Your task to perform on an android device: create a new album in the google photos Image 0: 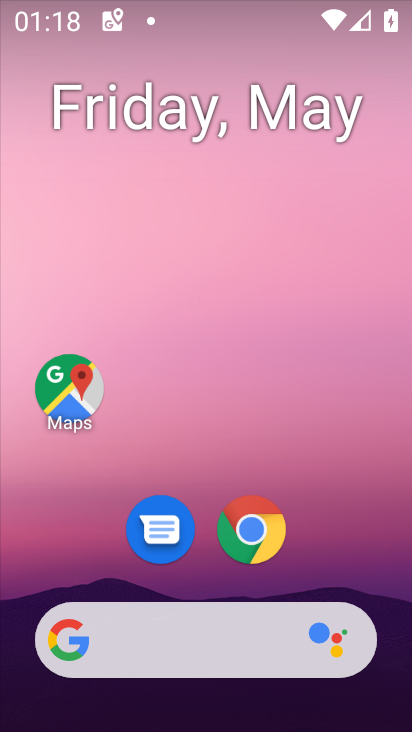
Step 0: drag from (310, 515) to (321, 188)
Your task to perform on an android device: create a new album in the google photos Image 1: 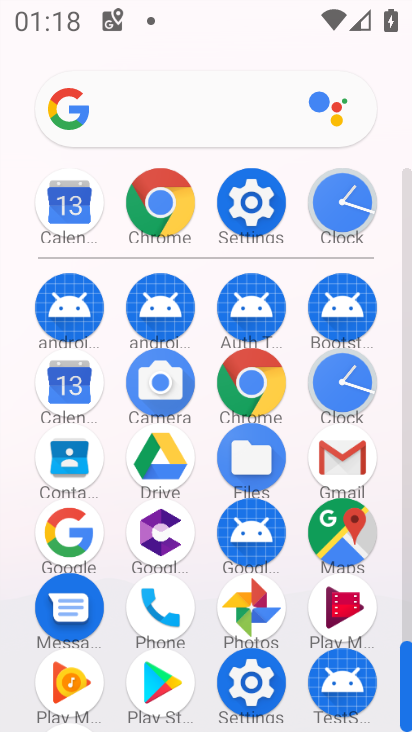
Step 1: click (253, 603)
Your task to perform on an android device: create a new album in the google photos Image 2: 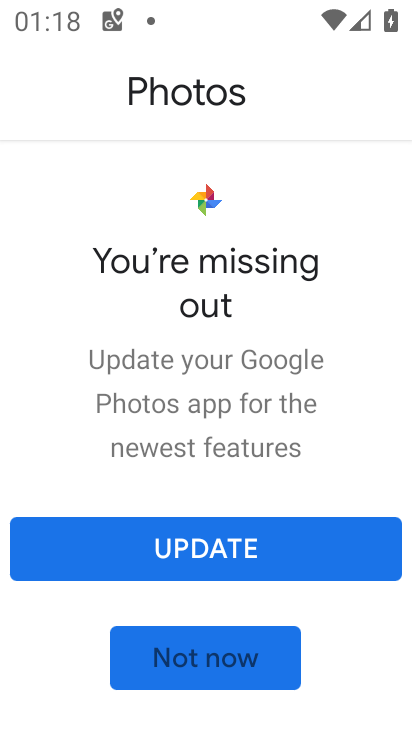
Step 2: click (248, 659)
Your task to perform on an android device: create a new album in the google photos Image 3: 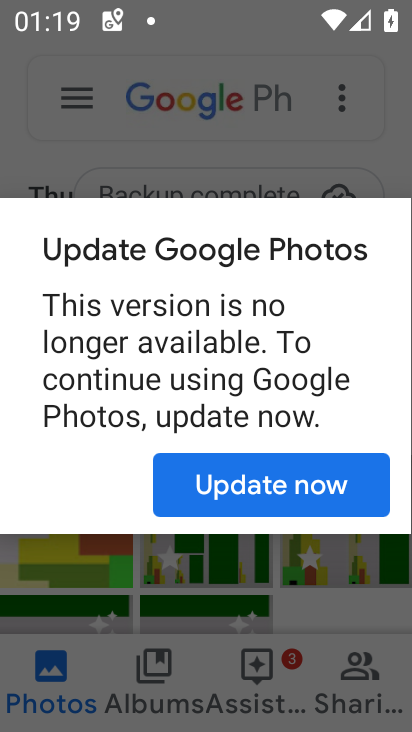
Step 3: click (290, 492)
Your task to perform on an android device: create a new album in the google photos Image 4: 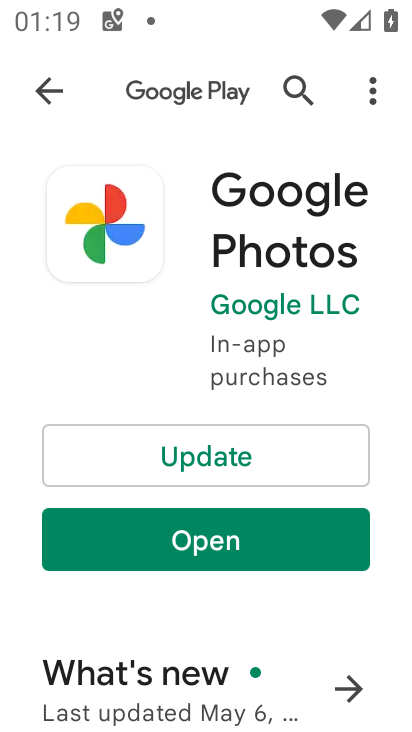
Step 4: press back button
Your task to perform on an android device: create a new album in the google photos Image 5: 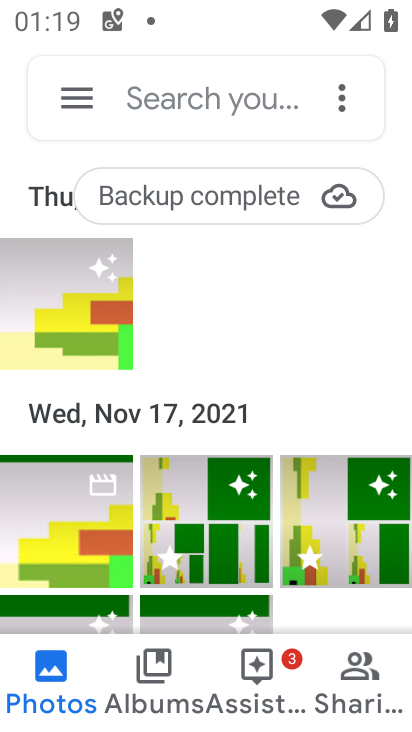
Step 5: click (101, 538)
Your task to perform on an android device: create a new album in the google photos Image 6: 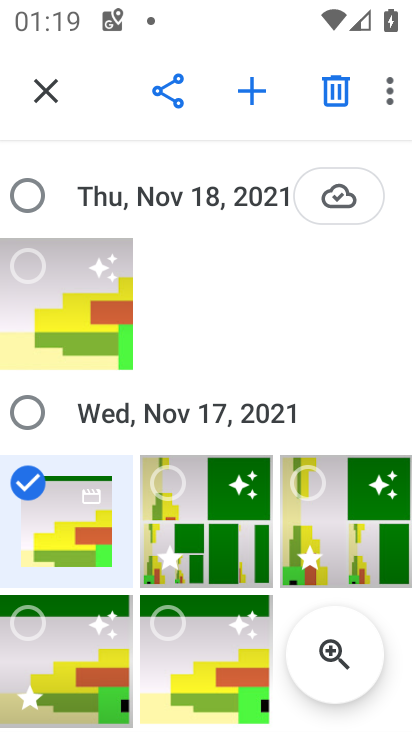
Step 6: click (262, 93)
Your task to perform on an android device: create a new album in the google photos Image 7: 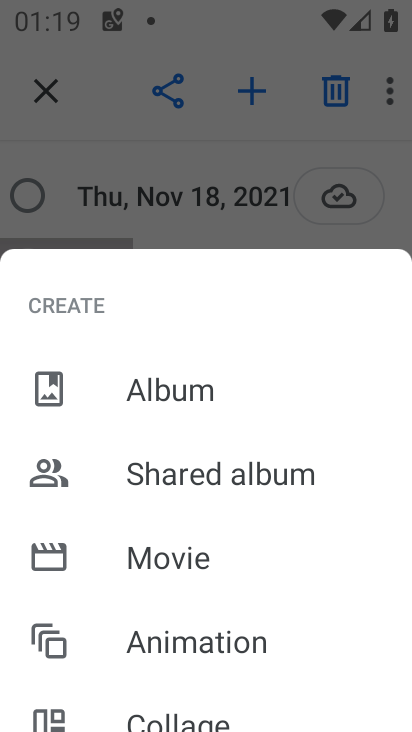
Step 7: click (145, 401)
Your task to perform on an android device: create a new album in the google photos Image 8: 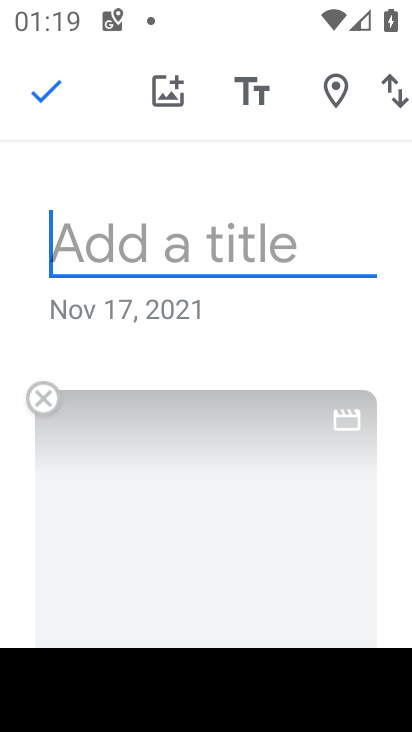
Step 8: click (175, 223)
Your task to perform on an android device: create a new album in the google photos Image 9: 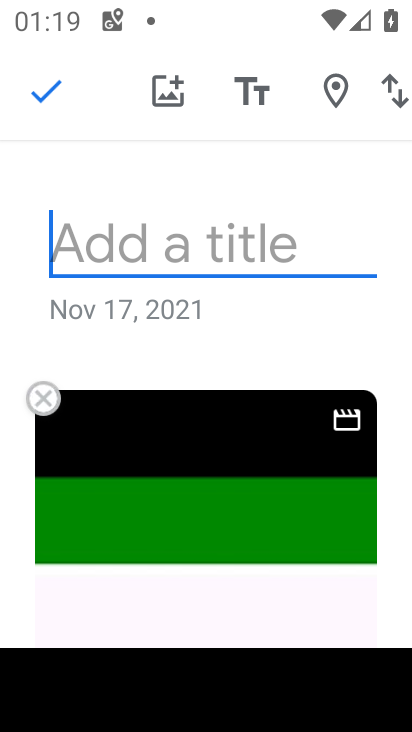
Step 9: type "kfkfkfkfk"
Your task to perform on an android device: create a new album in the google photos Image 10: 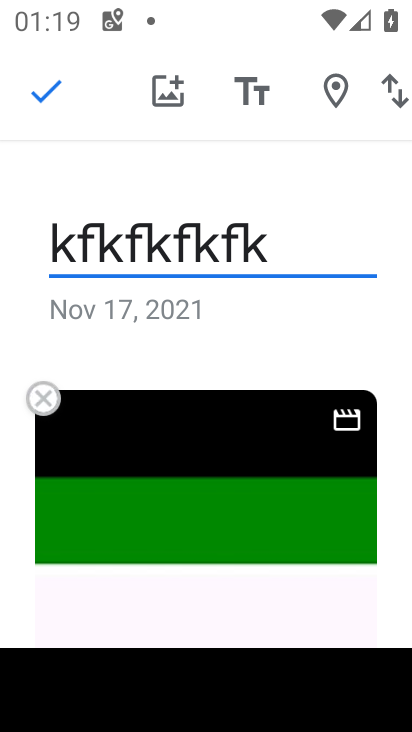
Step 10: click (39, 90)
Your task to perform on an android device: create a new album in the google photos Image 11: 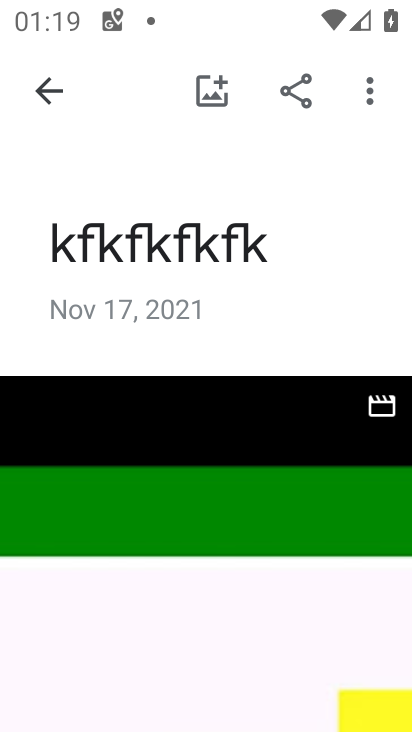
Step 11: task complete